Your task to perform on an android device: change the clock style Image 0: 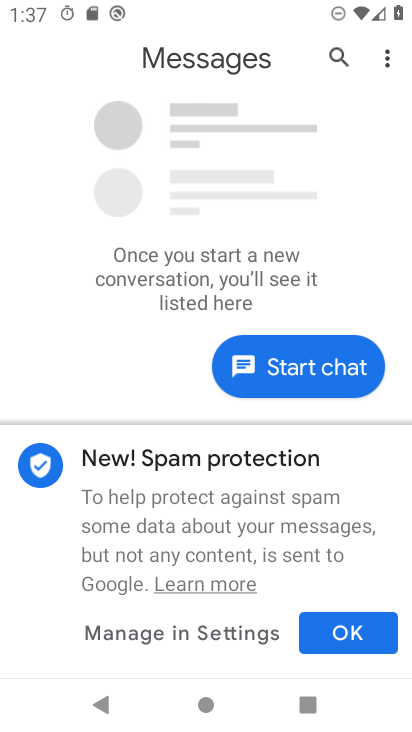
Step 0: press home button
Your task to perform on an android device: change the clock style Image 1: 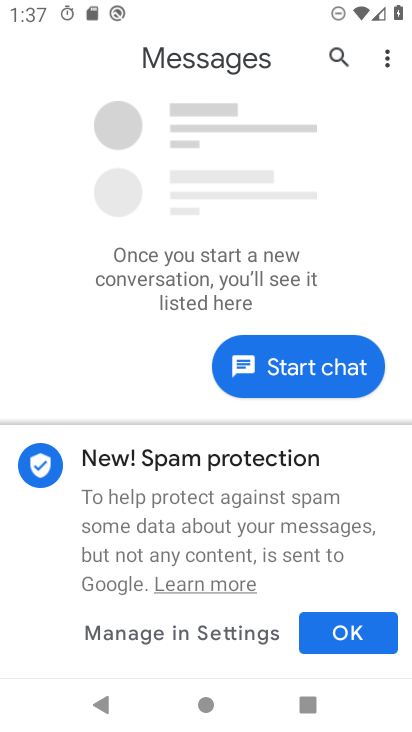
Step 1: press home button
Your task to perform on an android device: change the clock style Image 2: 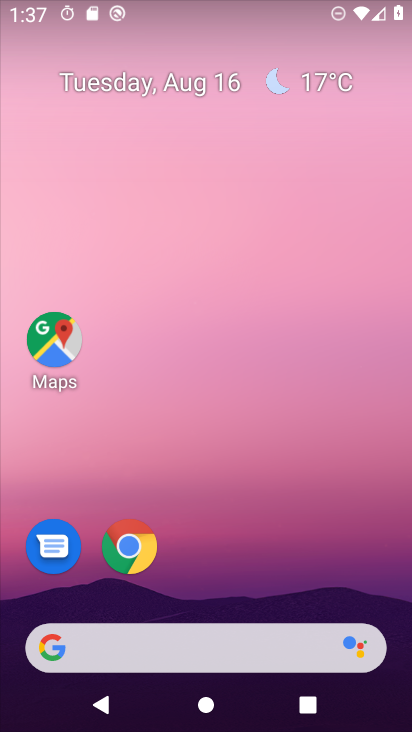
Step 2: drag from (209, 612) to (179, 117)
Your task to perform on an android device: change the clock style Image 3: 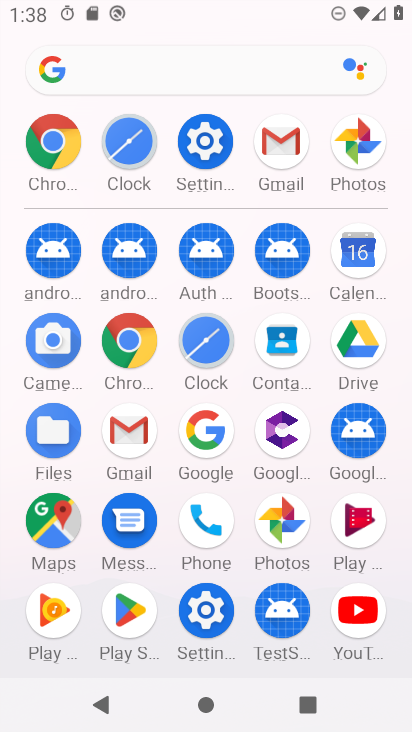
Step 3: click (201, 343)
Your task to perform on an android device: change the clock style Image 4: 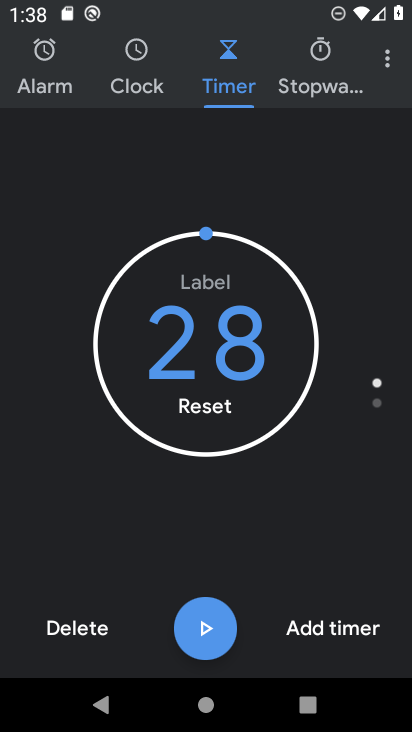
Step 4: click (387, 60)
Your task to perform on an android device: change the clock style Image 5: 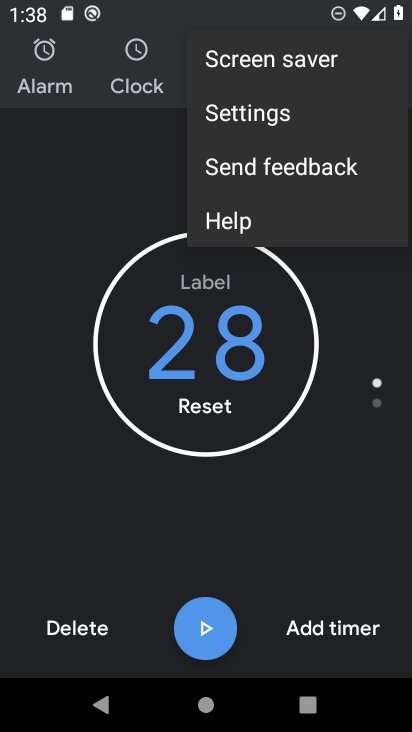
Step 5: click (248, 111)
Your task to perform on an android device: change the clock style Image 6: 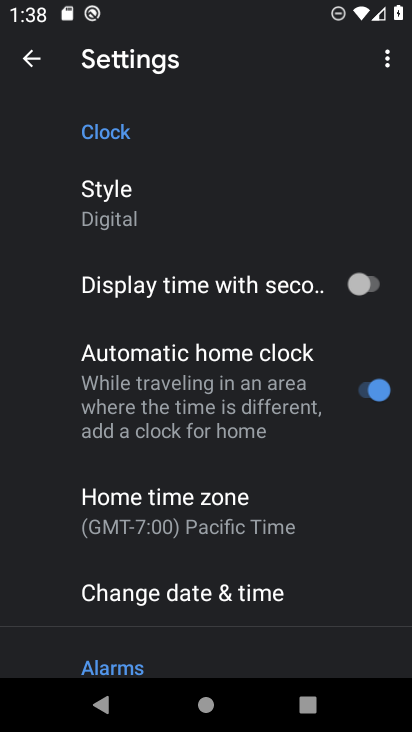
Step 6: click (104, 215)
Your task to perform on an android device: change the clock style Image 7: 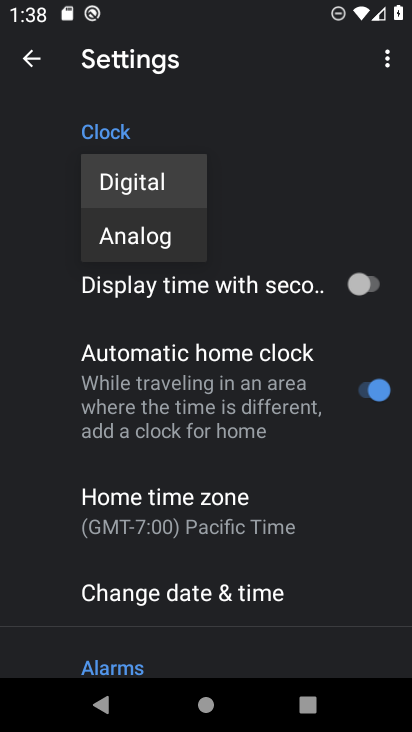
Step 7: click (140, 233)
Your task to perform on an android device: change the clock style Image 8: 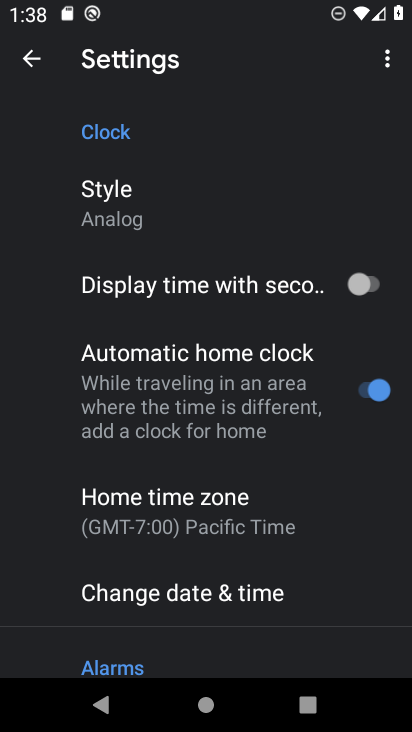
Step 8: task complete